Your task to perform on an android device: Check the news Image 0: 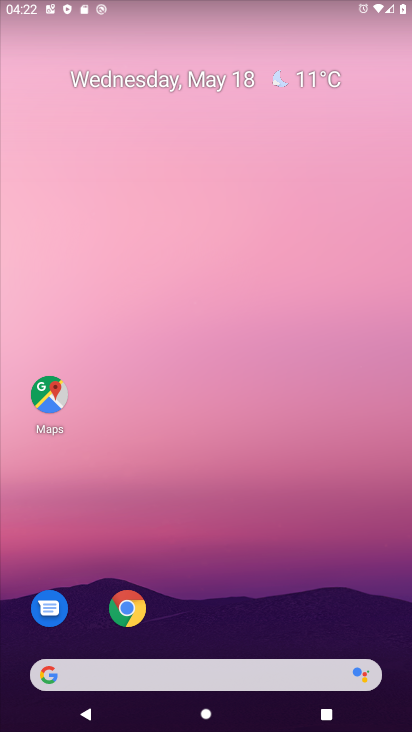
Step 0: click (118, 675)
Your task to perform on an android device: Check the news Image 1: 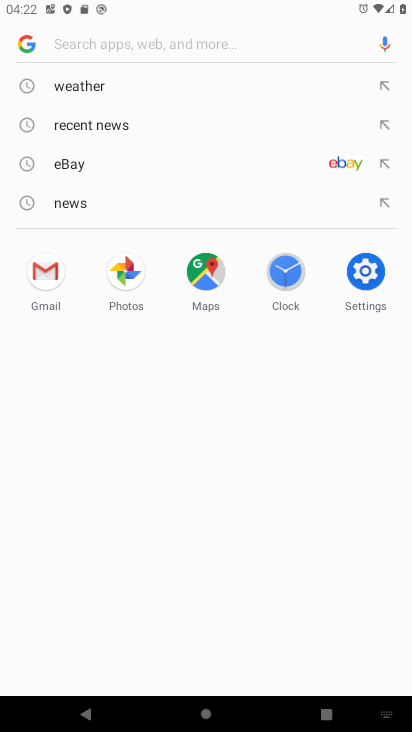
Step 1: click (120, 125)
Your task to perform on an android device: Check the news Image 2: 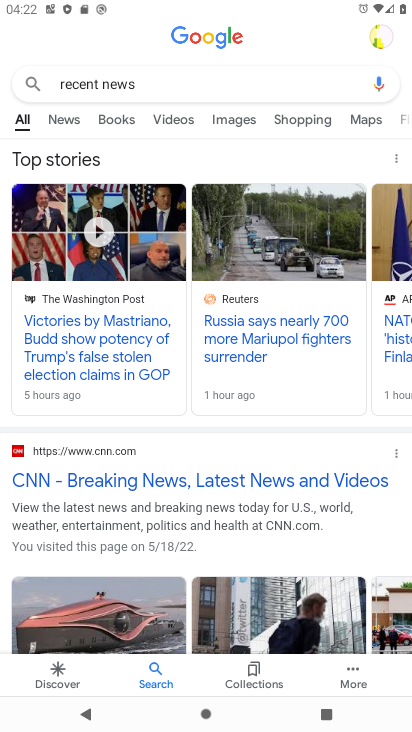
Step 2: task complete